Your task to perform on an android device: Do I have any events this weekend? Image 0: 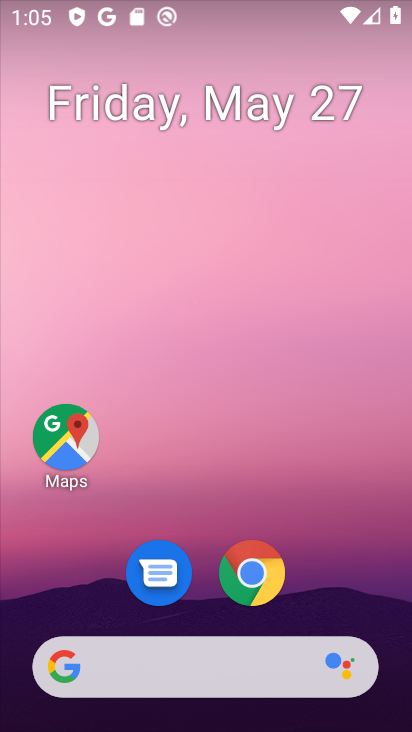
Step 0: drag from (209, 633) to (227, 0)
Your task to perform on an android device: Do I have any events this weekend? Image 1: 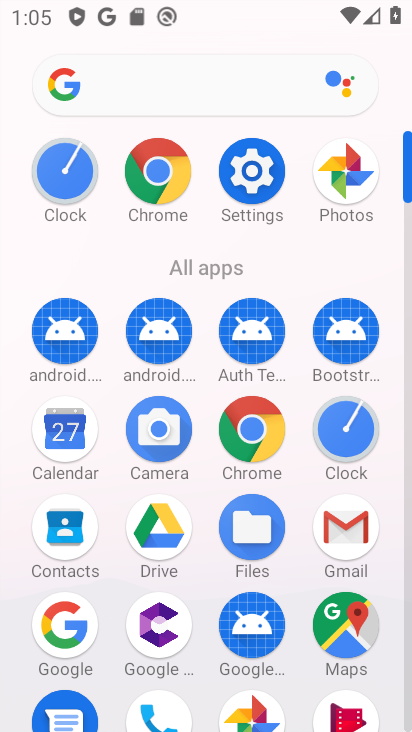
Step 1: click (67, 435)
Your task to perform on an android device: Do I have any events this weekend? Image 2: 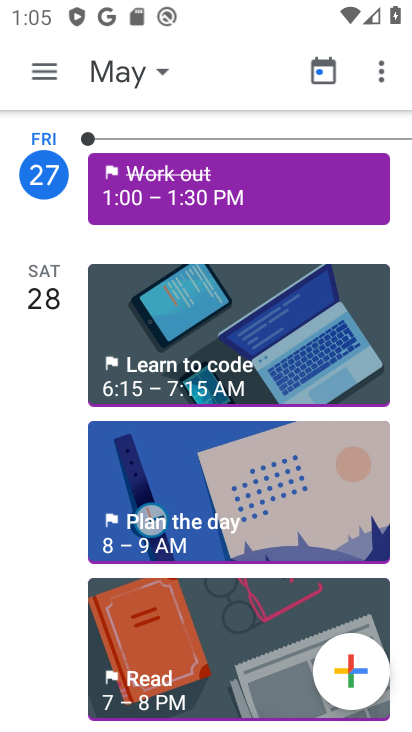
Step 2: click (45, 74)
Your task to perform on an android device: Do I have any events this weekend? Image 3: 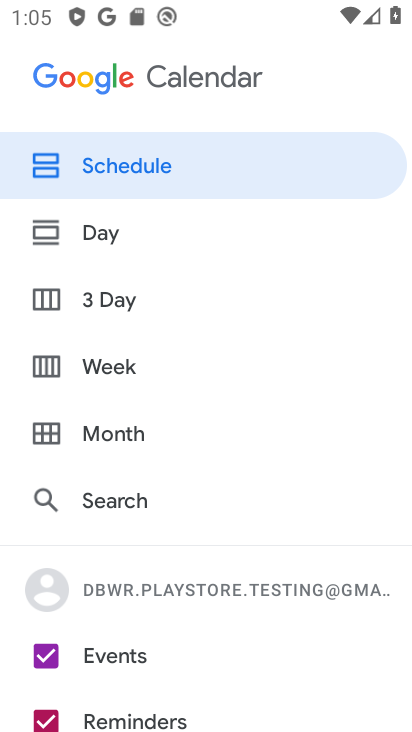
Step 3: click (90, 317)
Your task to perform on an android device: Do I have any events this weekend? Image 4: 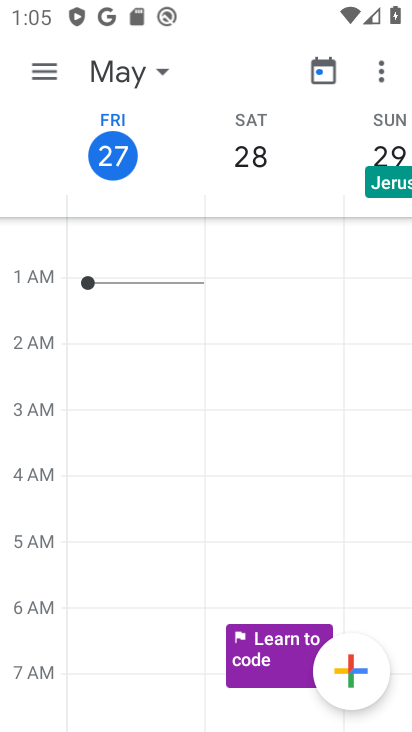
Step 4: click (47, 88)
Your task to perform on an android device: Do I have any events this weekend? Image 5: 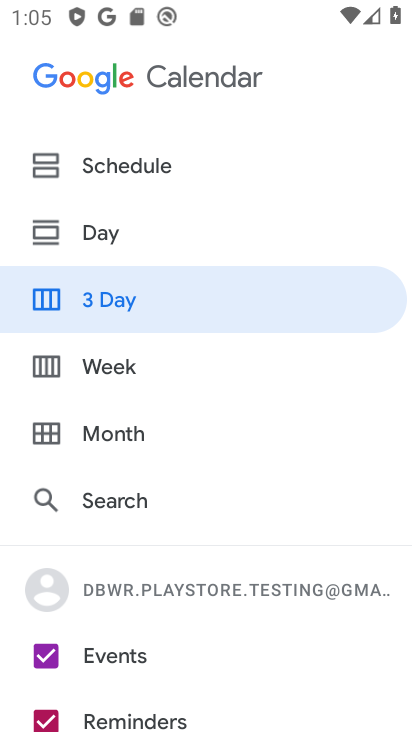
Step 5: click (127, 370)
Your task to perform on an android device: Do I have any events this weekend? Image 6: 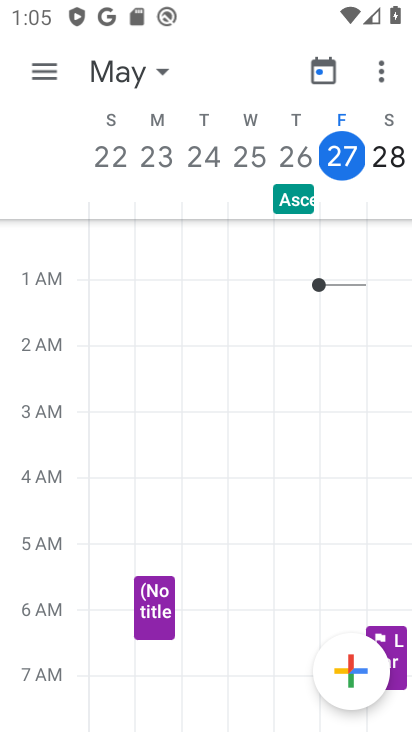
Step 6: task complete